Your task to perform on an android device: Set the phone to "Do not disturb". Image 0: 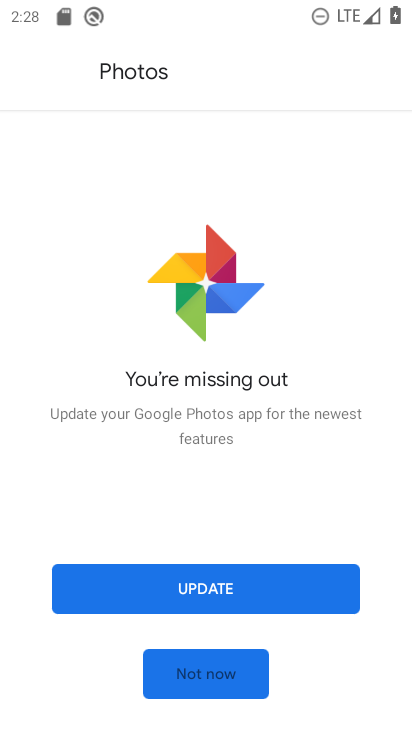
Step 0: drag from (246, 11) to (214, 459)
Your task to perform on an android device: Set the phone to "Do not disturb". Image 1: 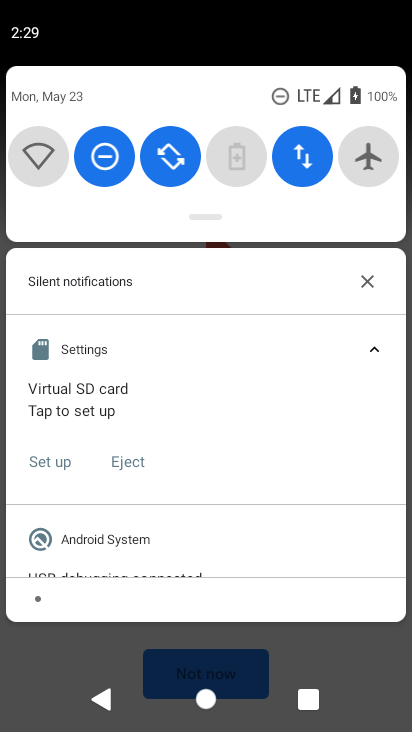
Step 1: task complete